Your task to perform on an android device: Go to sound settings Image 0: 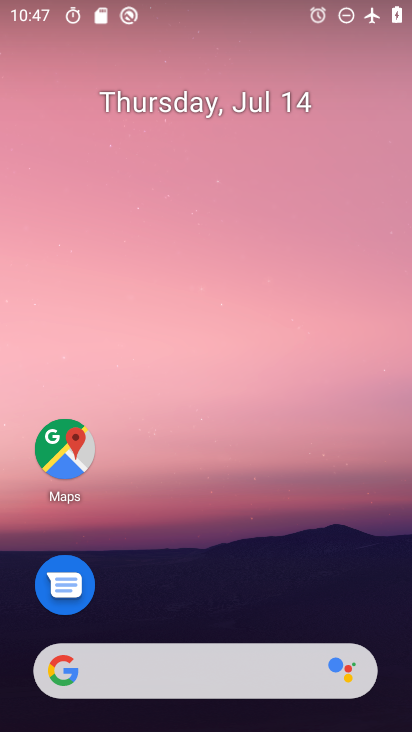
Step 0: drag from (225, 620) to (129, 47)
Your task to perform on an android device: Go to sound settings Image 1: 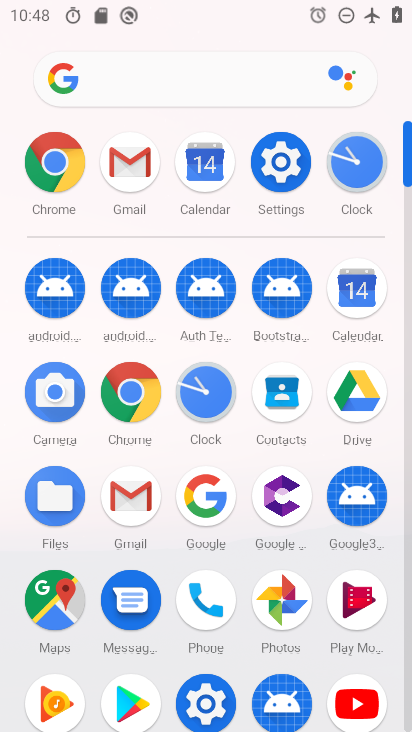
Step 1: click (270, 178)
Your task to perform on an android device: Go to sound settings Image 2: 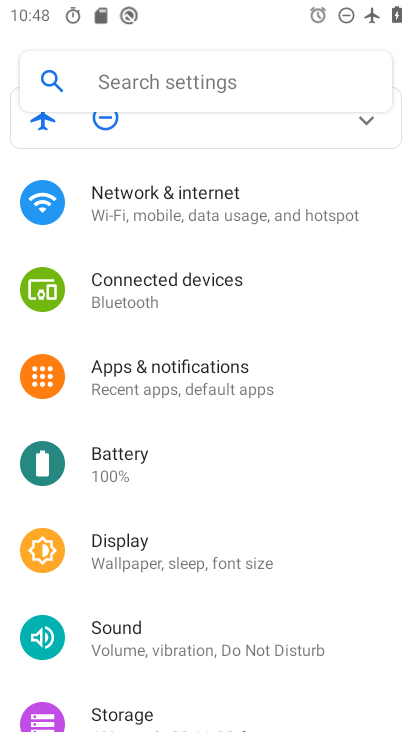
Step 2: click (120, 628)
Your task to perform on an android device: Go to sound settings Image 3: 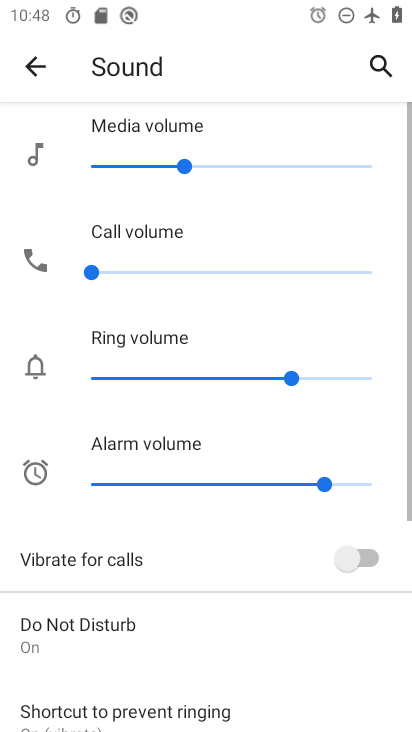
Step 3: task complete